Your task to perform on an android device: Open wifi settings Image 0: 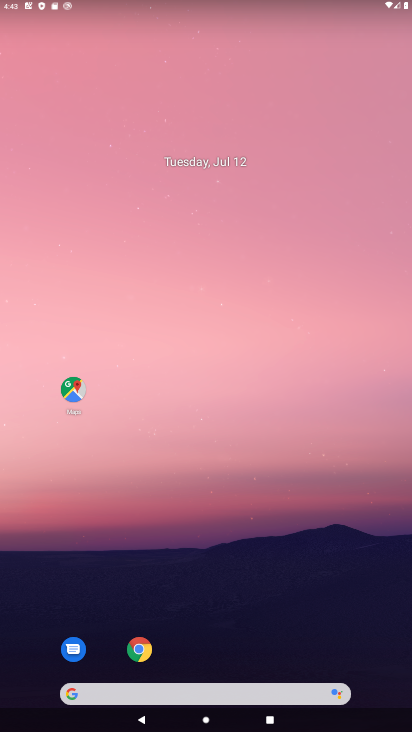
Step 0: drag from (192, 694) to (244, 90)
Your task to perform on an android device: Open wifi settings Image 1: 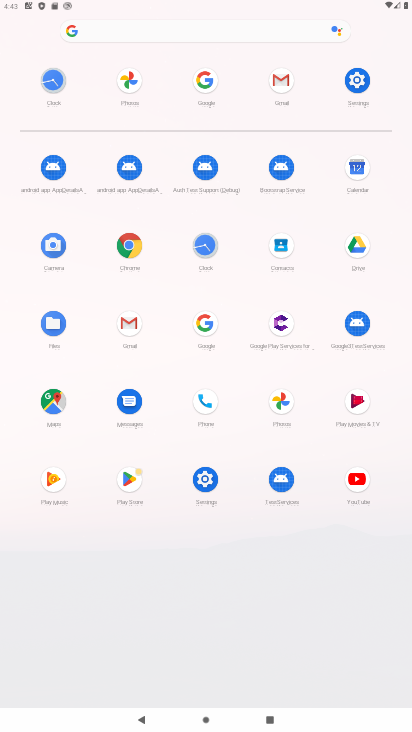
Step 1: click (357, 79)
Your task to perform on an android device: Open wifi settings Image 2: 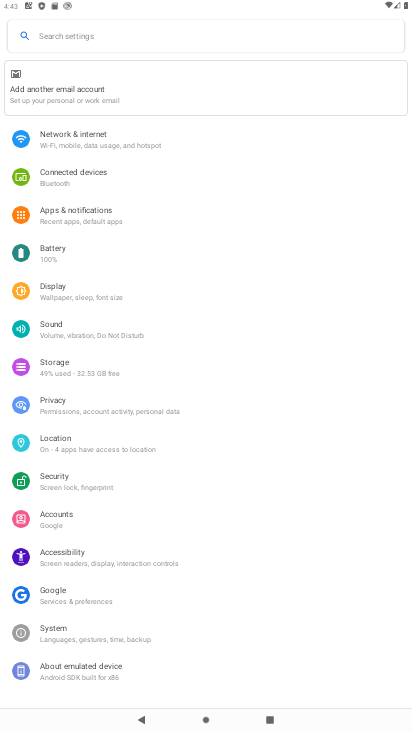
Step 2: click (71, 138)
Your task to perform on an android device: Open wifi settings Image 3: 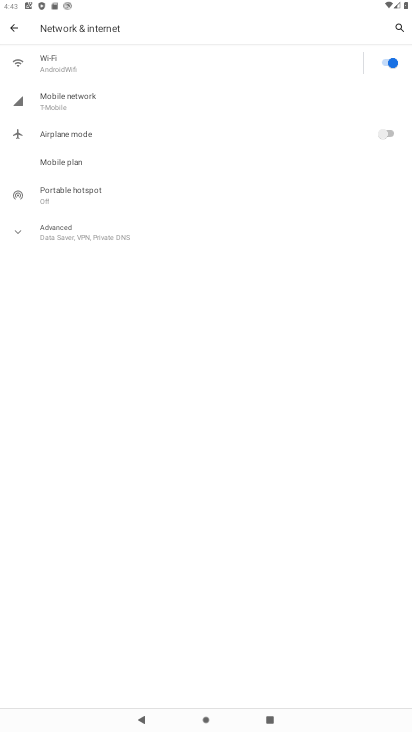
Step 3: click (66, 66)
Your task to perform on an android device: Open wifi settings Image 4: 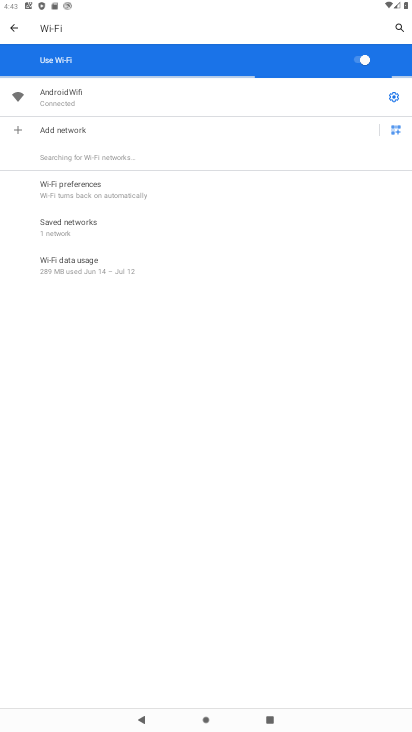
Step 4: click (391, 93)
Your task to perform on an android device: Open wifi settings Image 5: 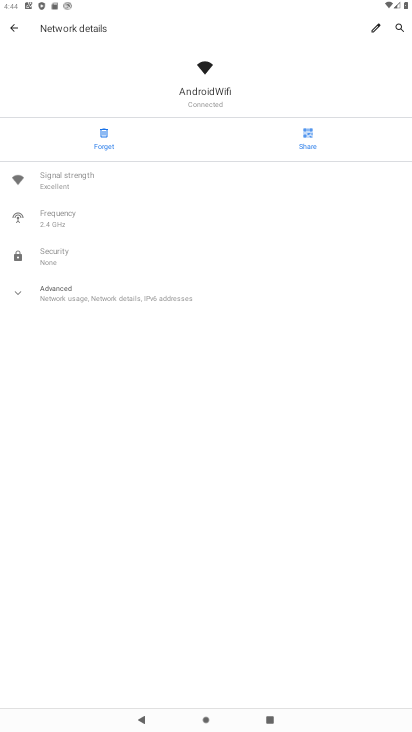
Step 5: task complete